Your task to perform on an android device: Open the calendar app, open the side menu, and click the "Day" option Image 0: 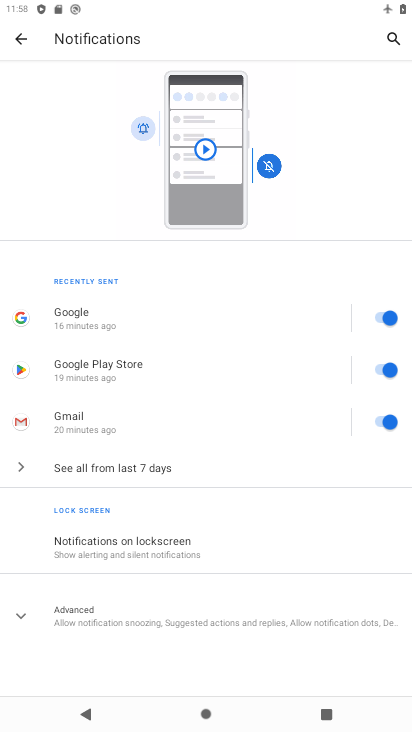
Step 0: press home button
Your task to perform on an android device: Open the calendar app, open the side menu, and click the "Day" option Image 1: 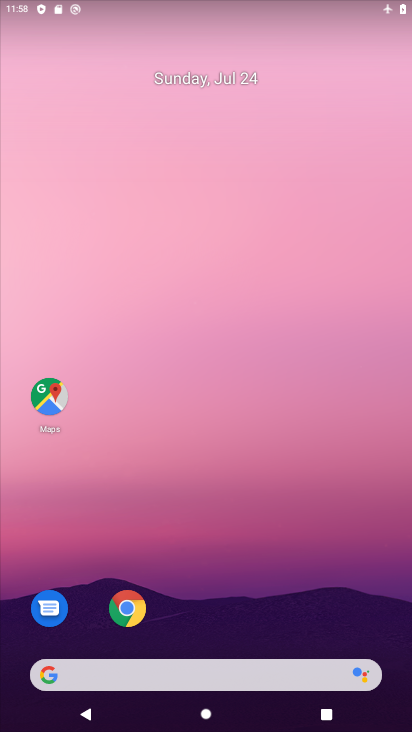
Step 1: drag from (198, 616) to (165, 167)
Your task to perform on an android device: Open the calendar app, open the side menu, and click the "Day" option Image 2: 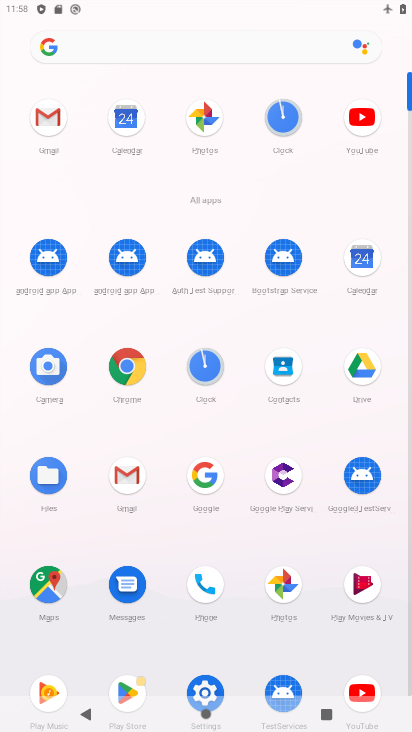
Step 2: click (372, 263)
Your task to perform on an android device: Open the calendar app, open the side menu, and click the "Day" option Image 3: 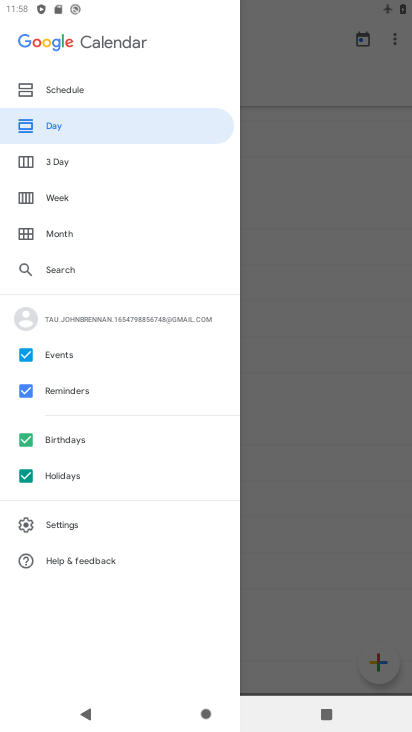
Step 3: task complete